Your task to perform on an android device: install app "Microsoft Authenticator" Image 0: 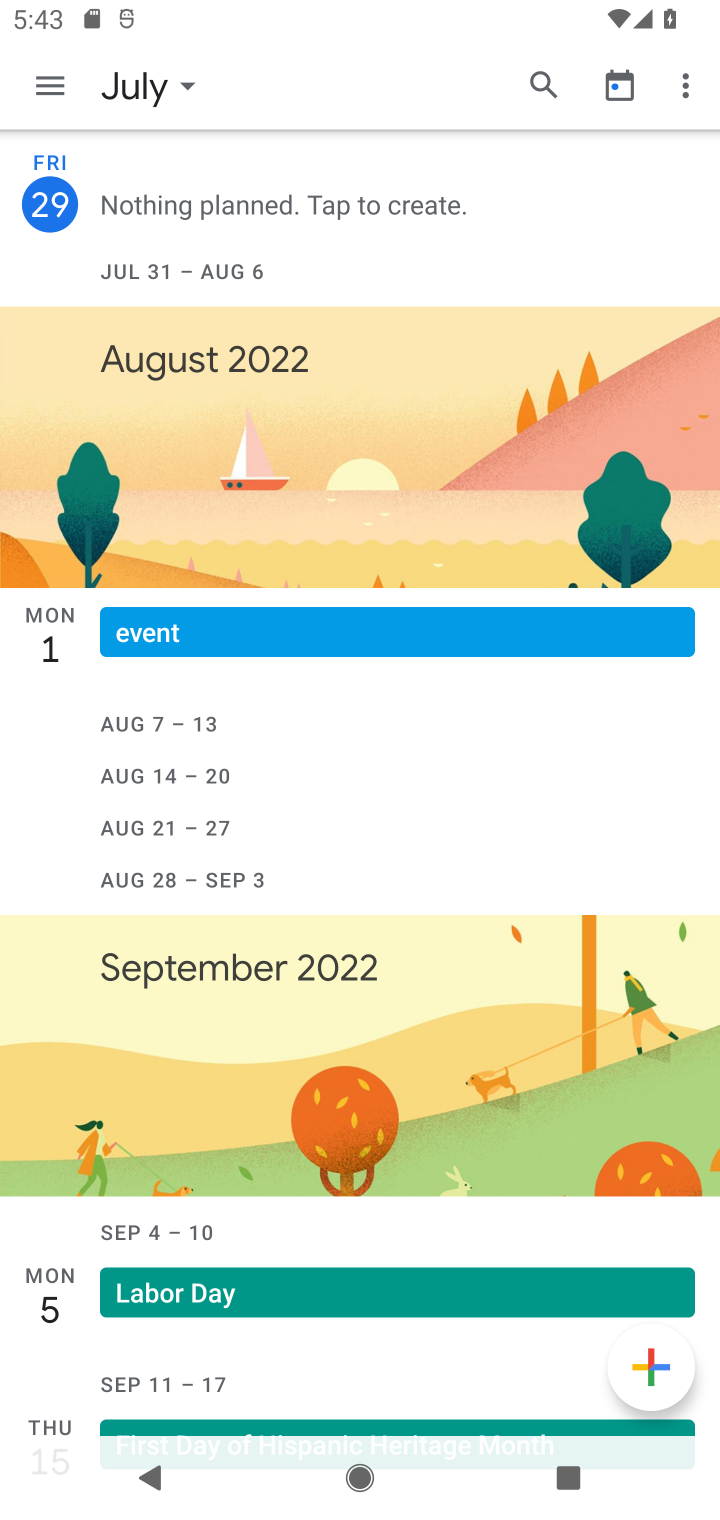
Step 0: press home button
Your task to perform on an android device: install app "Microsoft Authenticator" Image 1: 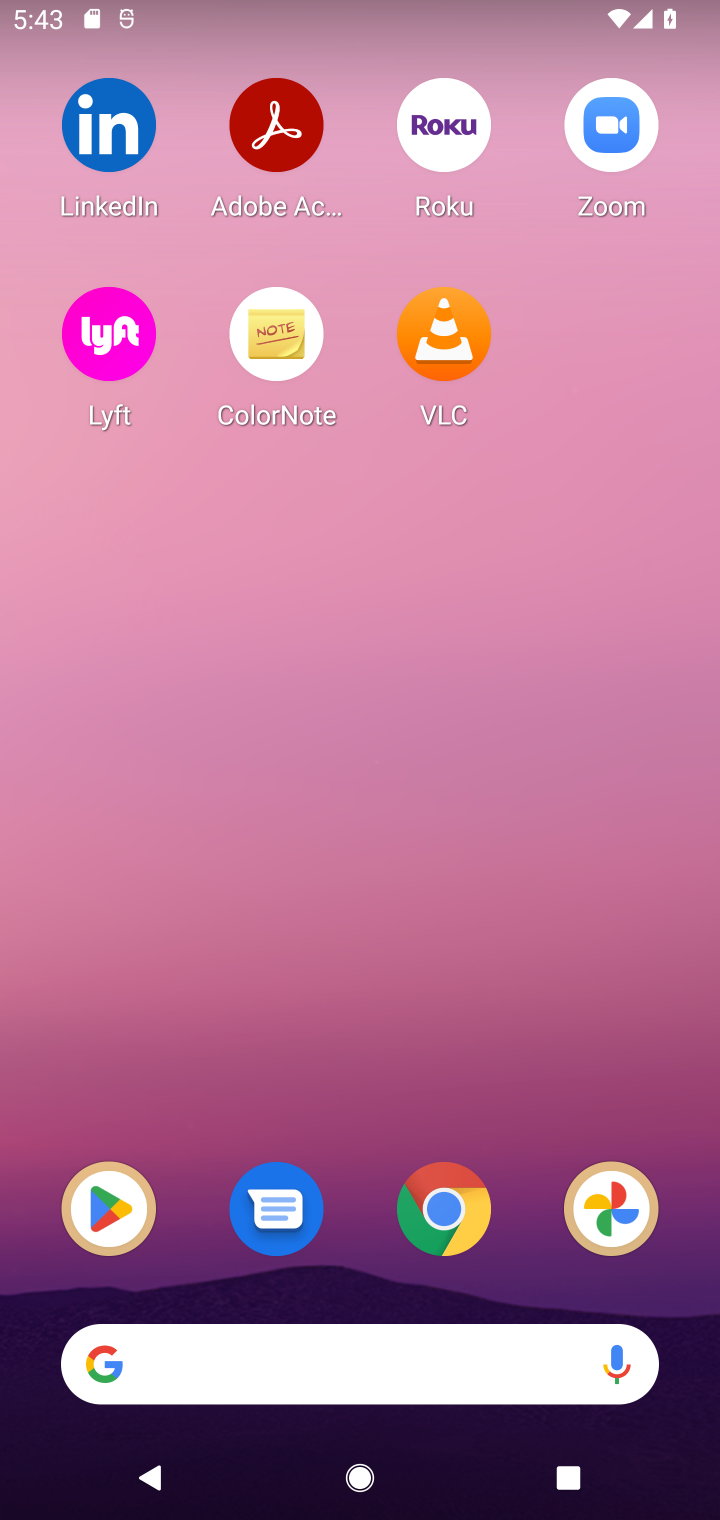
Step 1: click (105, 1219)
Your task to perform on an android device: install app "Microsoft Authenticator" Image 2: 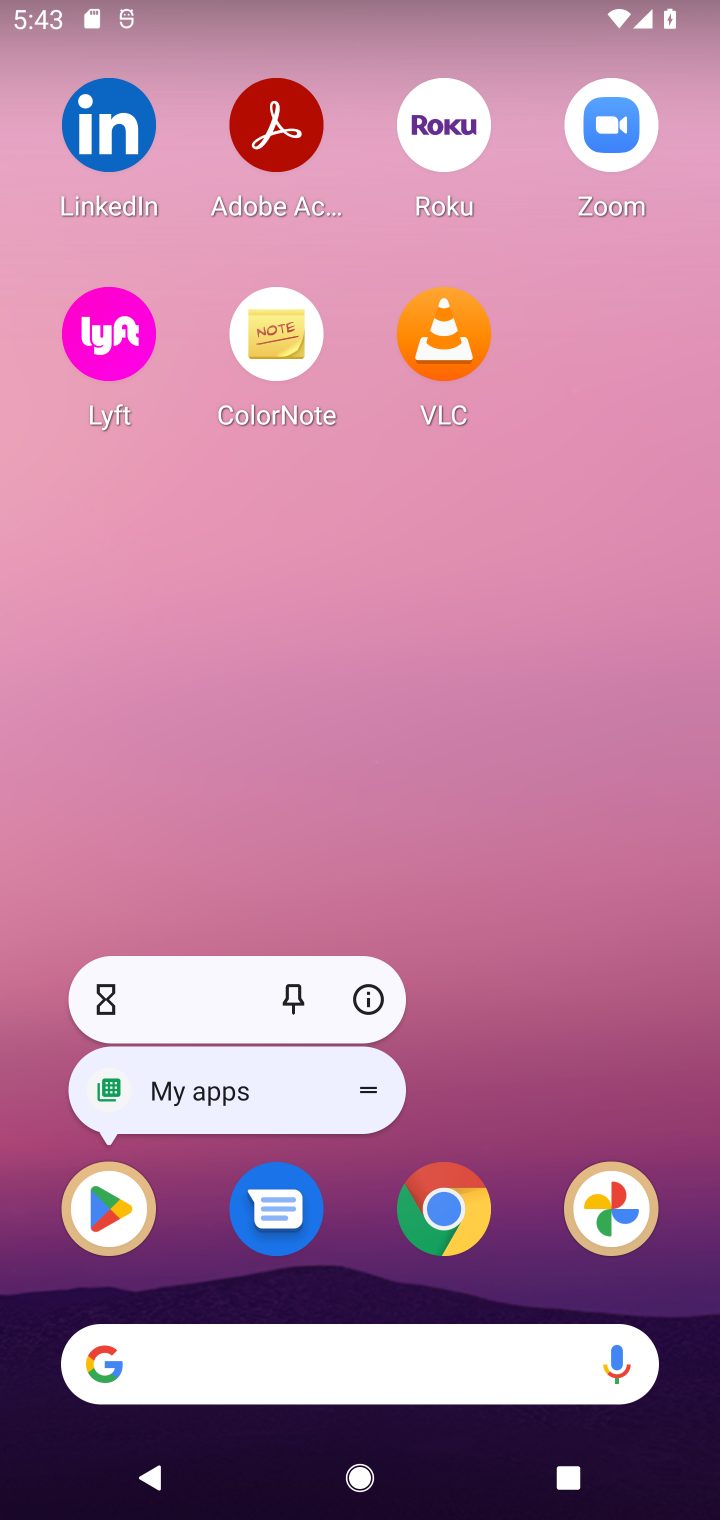
Step 2: click (105, 1219)
Your task to perform on an android device: install app "Microsoft Authenticator" Image 3: 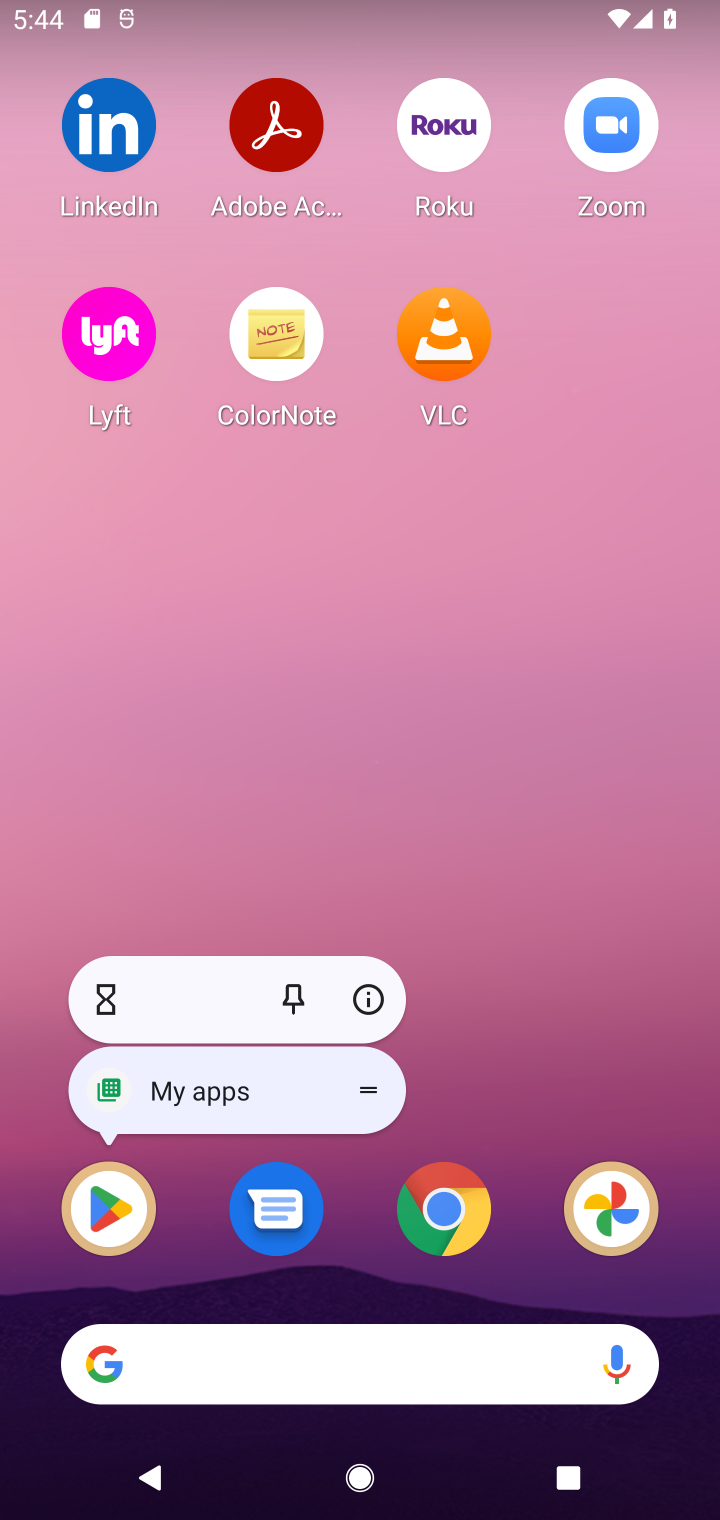
Step 3: click (105, 1219)
Your task to perform on an android device: install app "Microsoft Authenticator" Image 4: 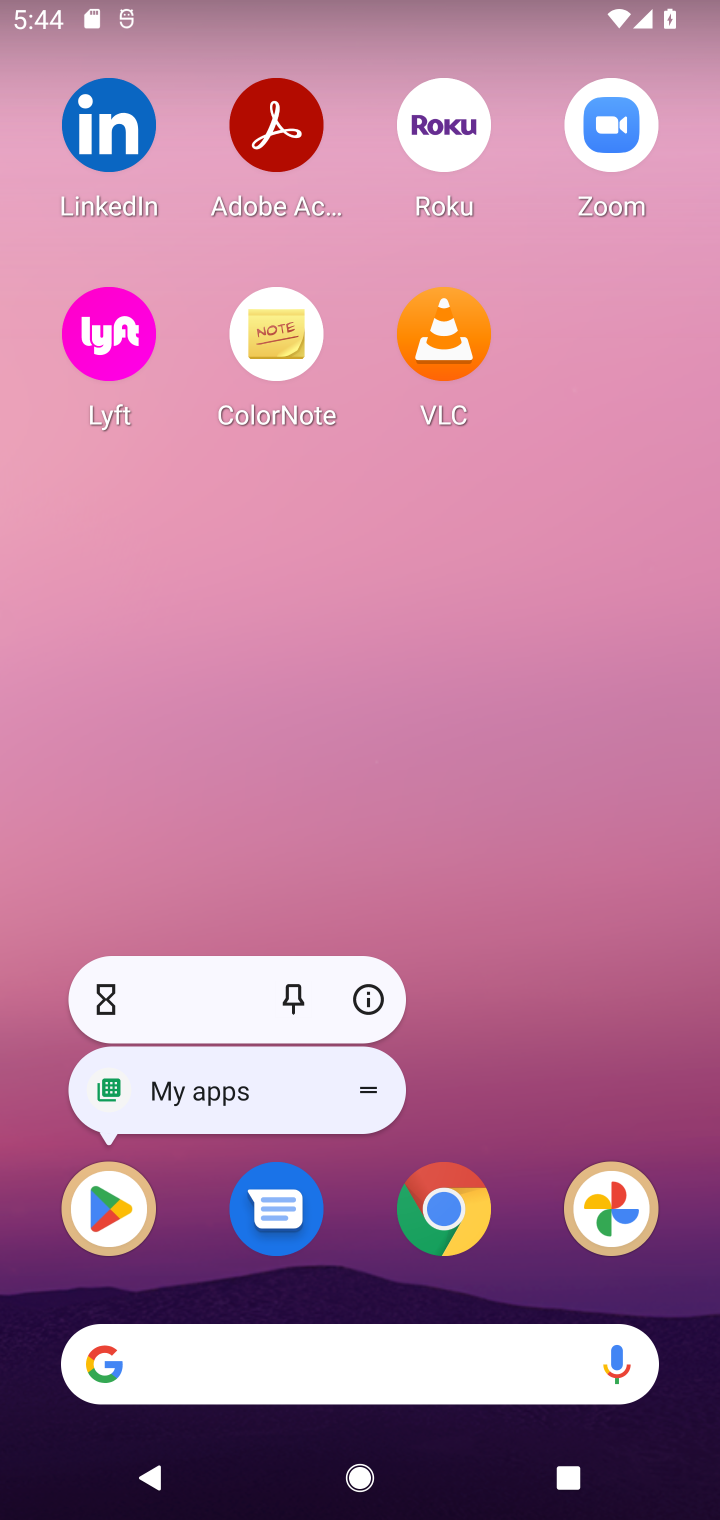
Step 4: click (105, 1219)
Your task to perform on an android device: install app "Microsoft Authenticator" Image 5: 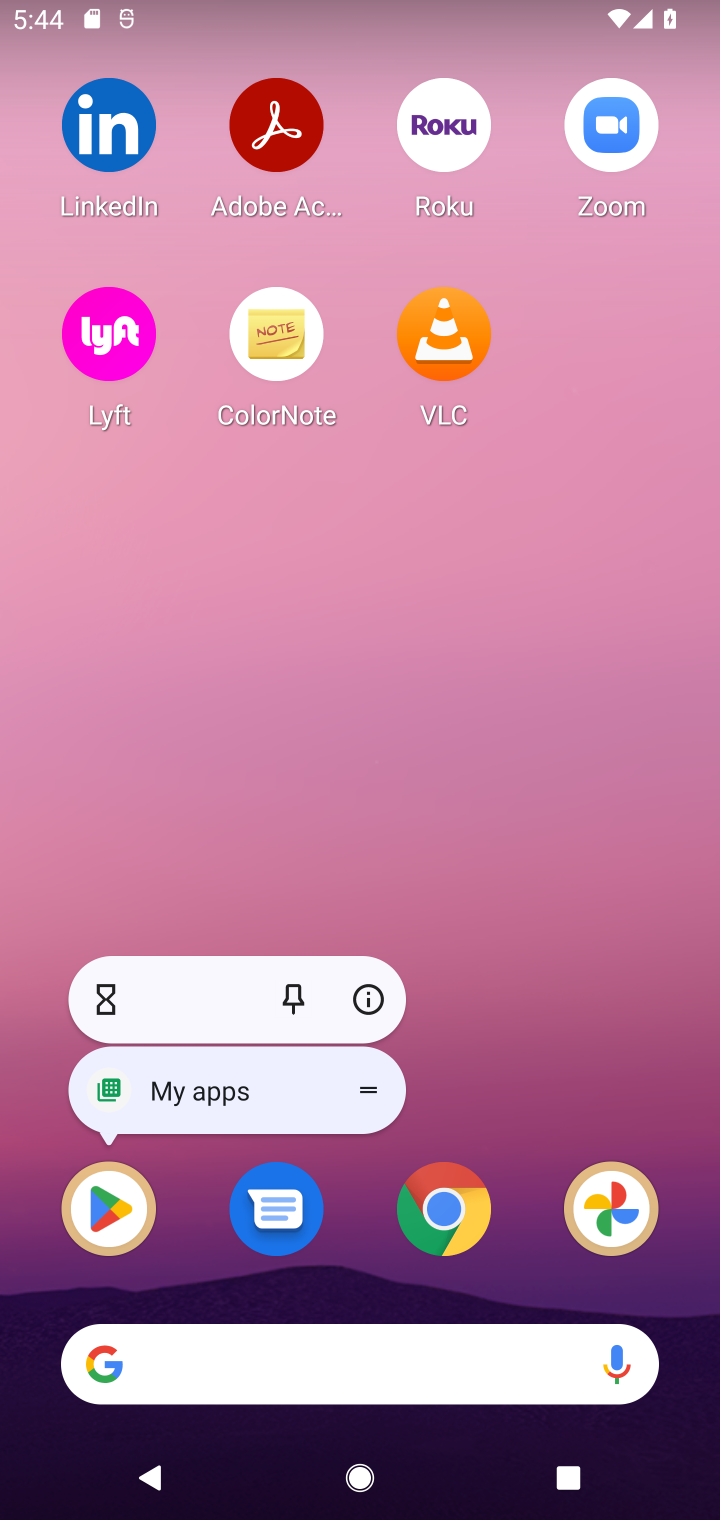
Step 5: click (105, 1219)
Your task to perform on an android device: install app "Microsoft Authenticator" Image 6: 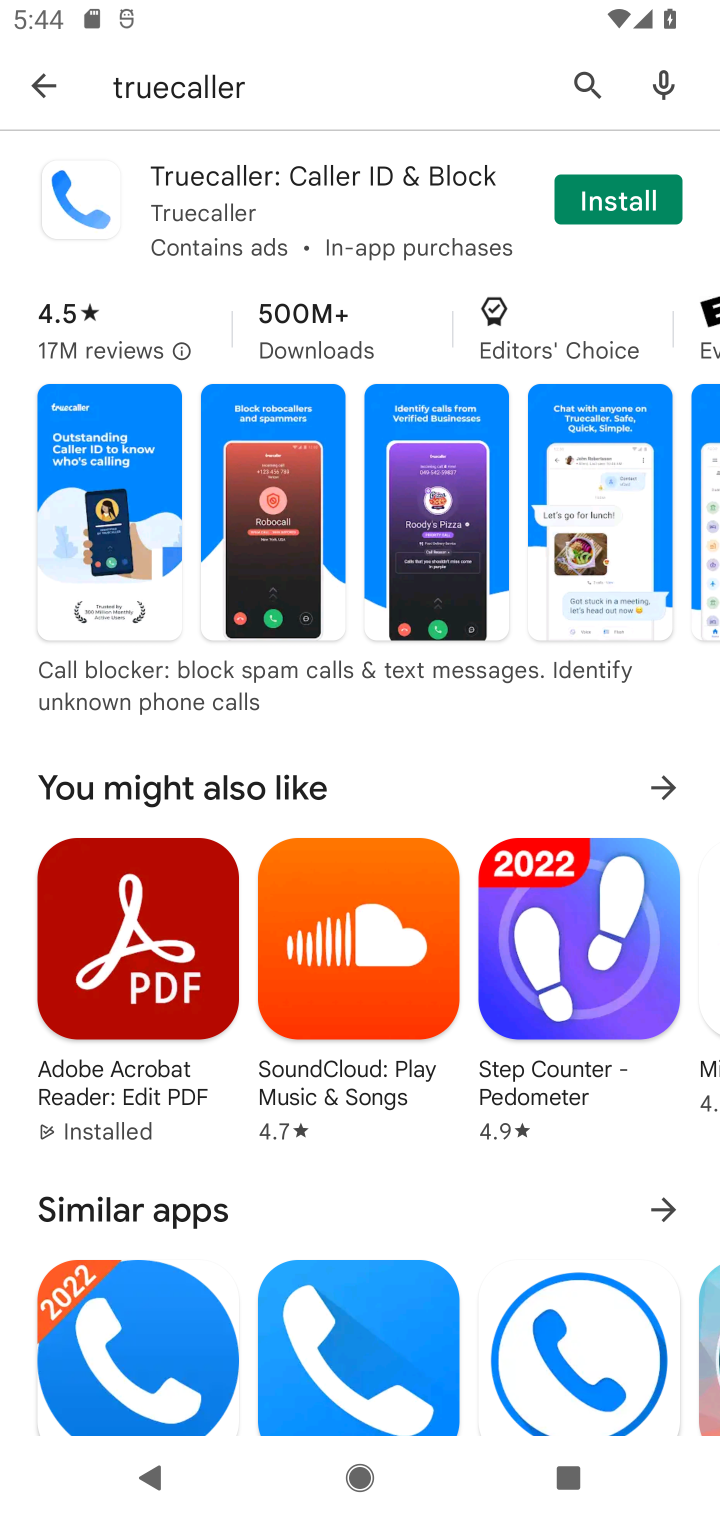
Step 6: click (600, 80)
Your task to perform on an android device: install app "Microsoft Authenticator" Image 7: 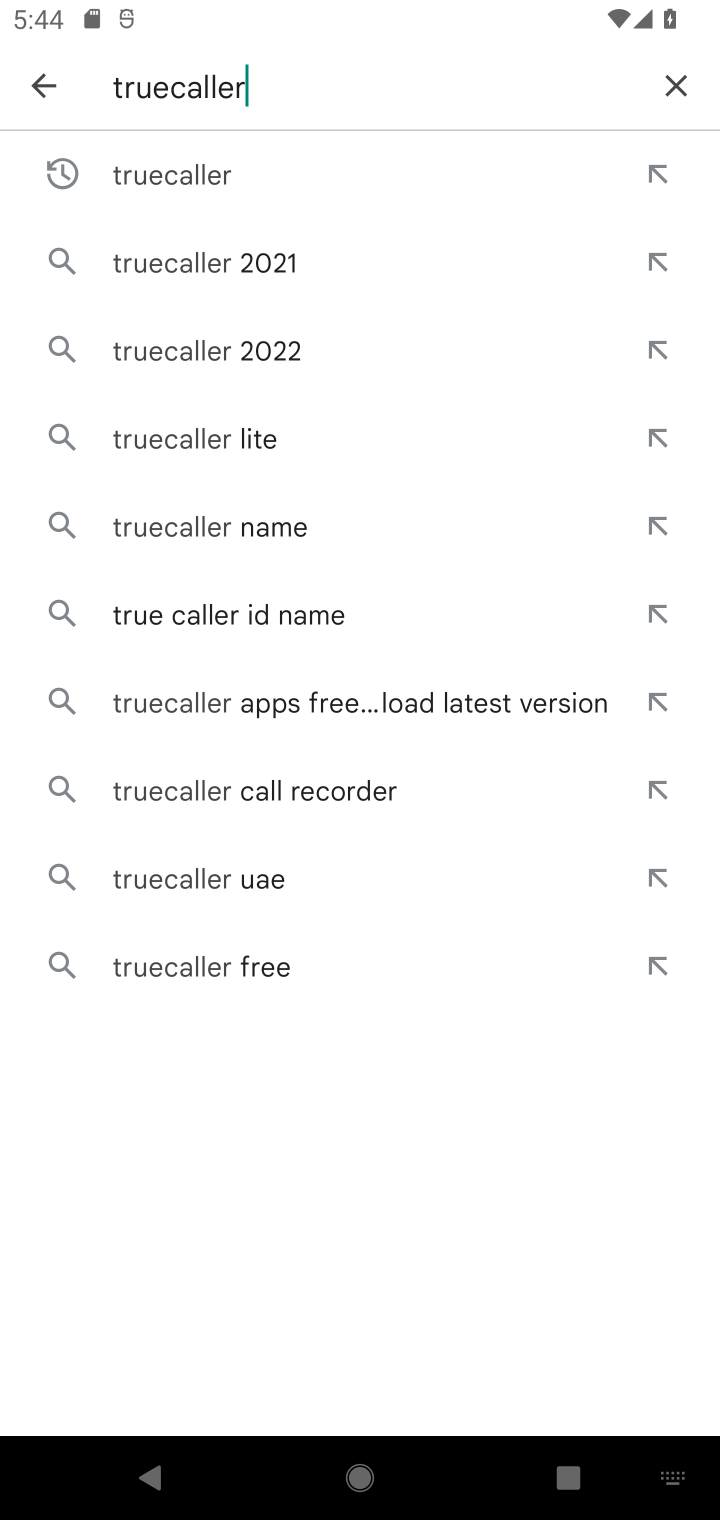
Step 7: click (680, 99)
Your task to perform on an android device: install app "Microsoft Authenticator" Image 8: 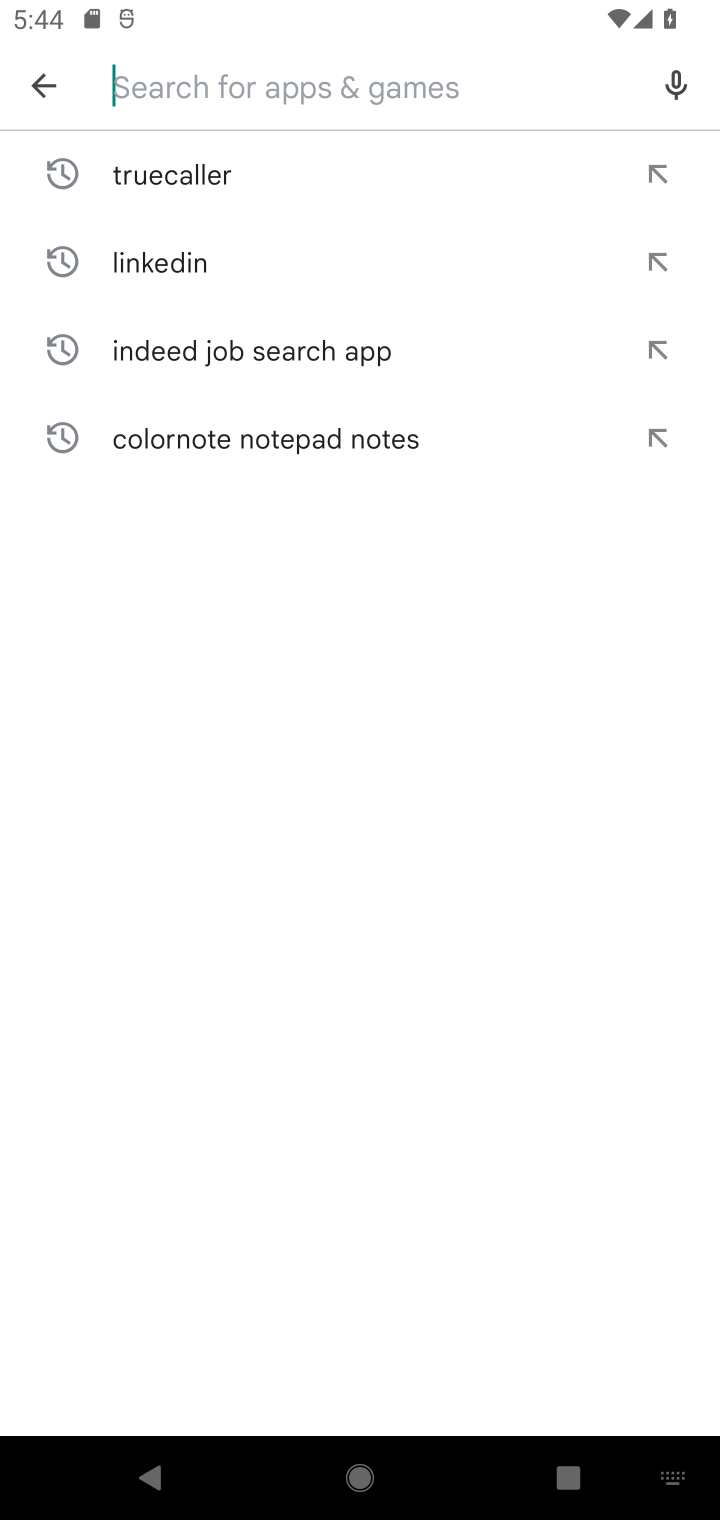
Step 8: type "Microsoft Authenticator"
Your task to perform on an android device: install app "Microsoft Authenticator" Image 9: 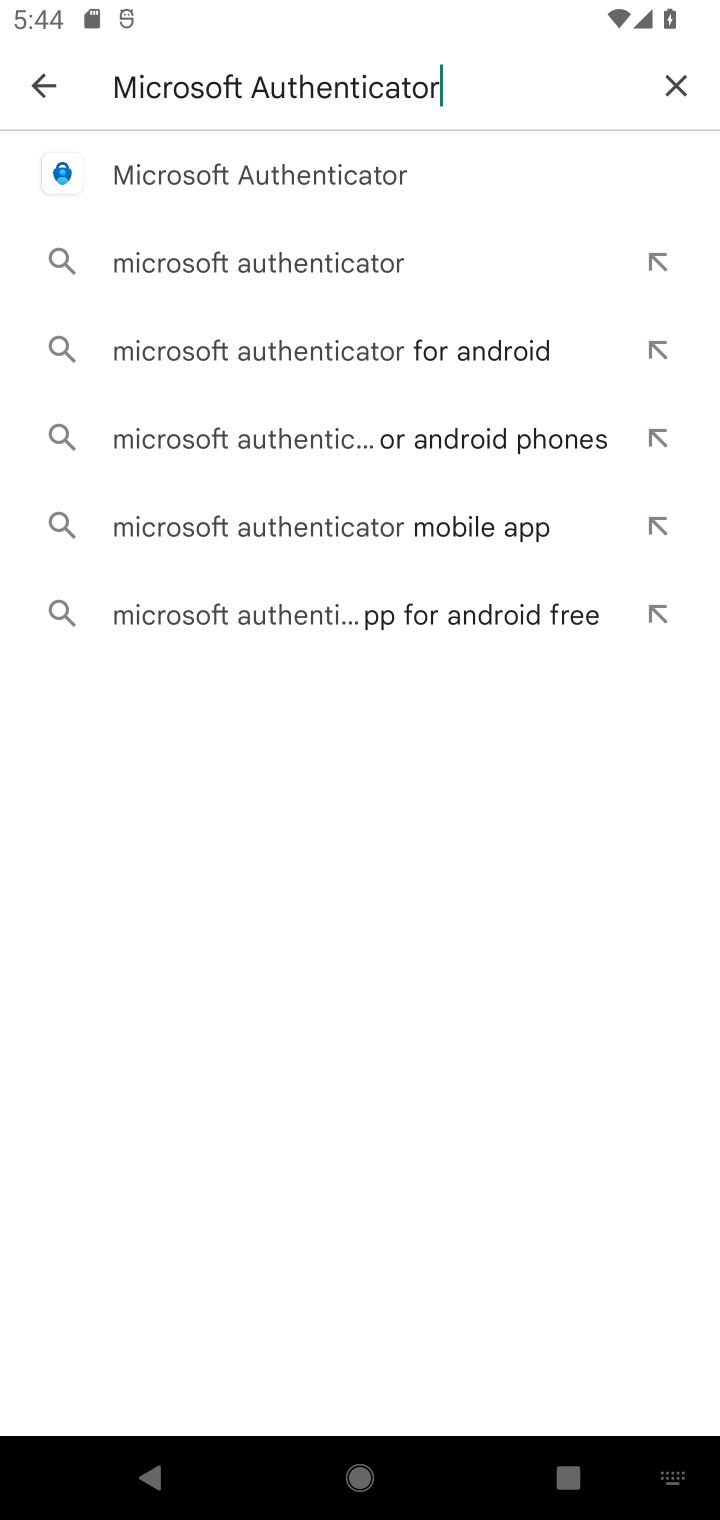
Step 9: click (303, 193)
Your task to perform on an android device: install app "Microsoft Authenticator" Image 10: 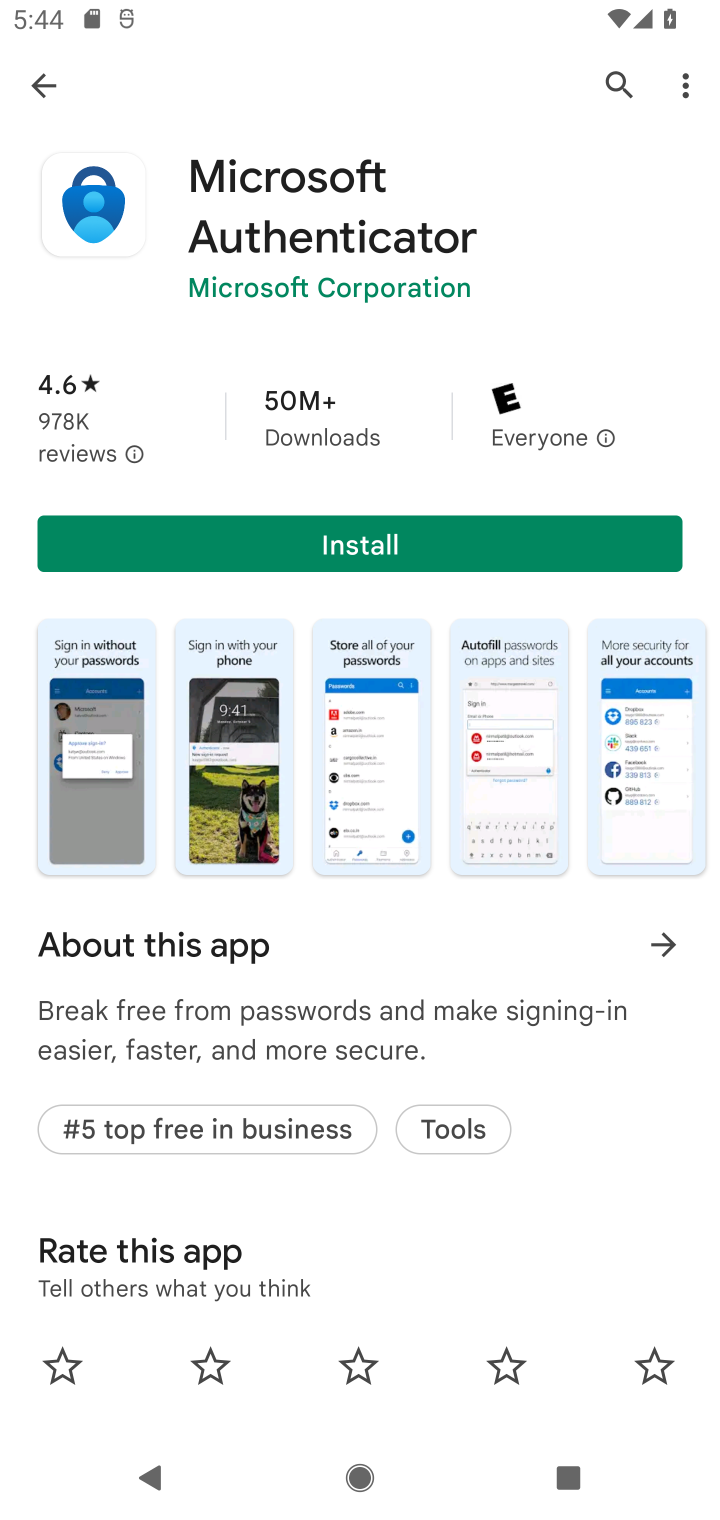
Step 10: click (339, 553)
Your task to perform on an android device: install app "Microsoft Authenticator" Image 11: 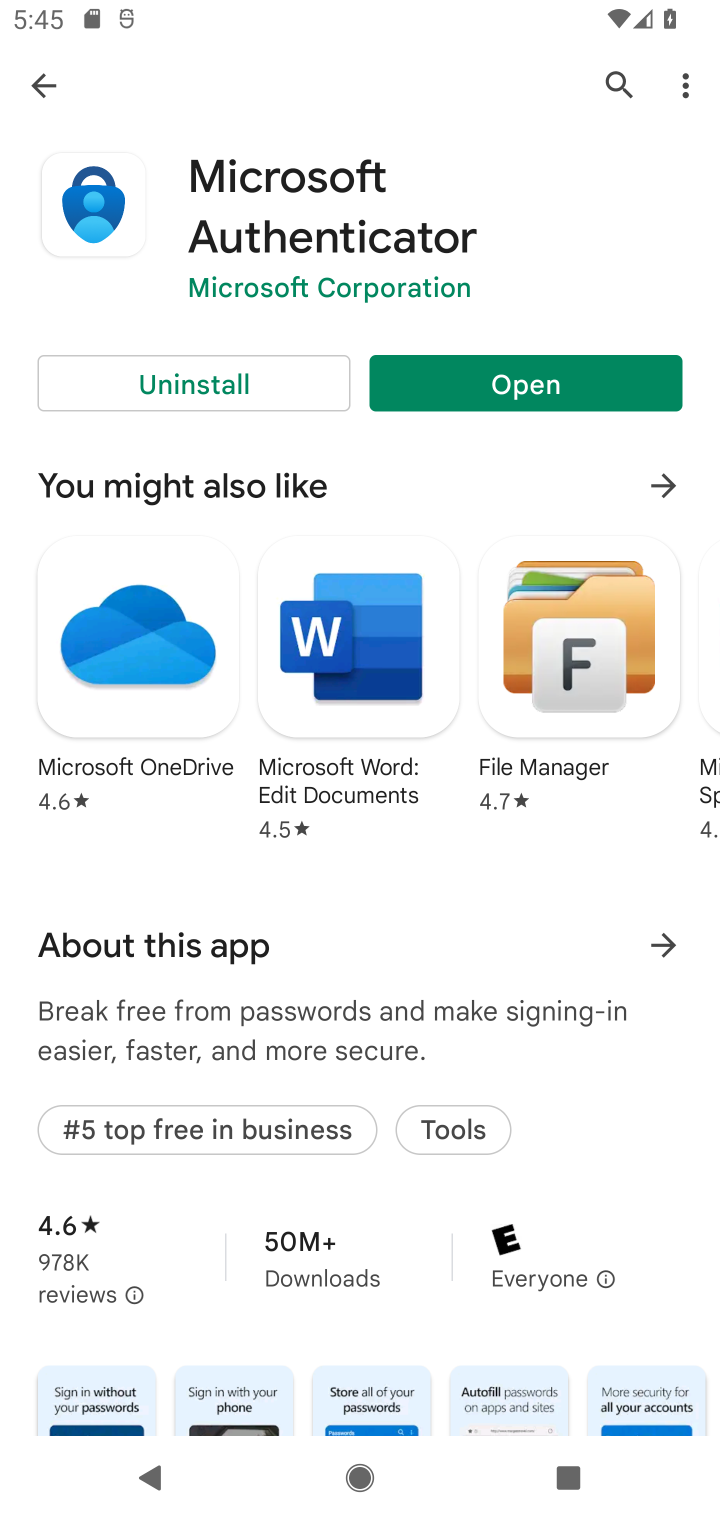
Step 11: task complete